Your task to perform on an android device: Open the Play Movies app and select the watchlist tab. Image 0: 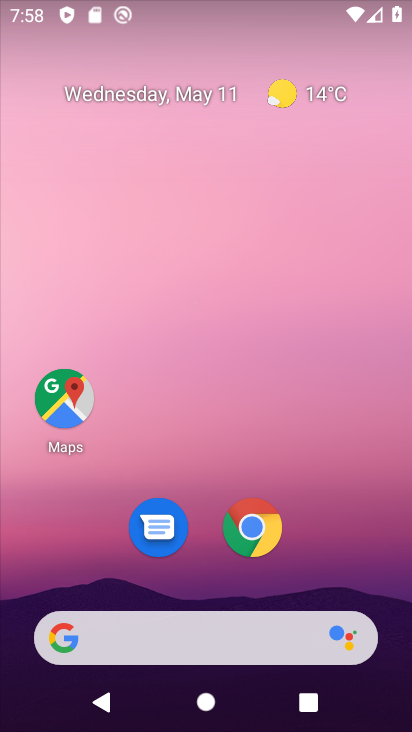
Step 0: drag from (193, 564) to (240, 193)
Your task to perform on an android device: Open the Play Movies app and select the watchlist tab. Image 1: 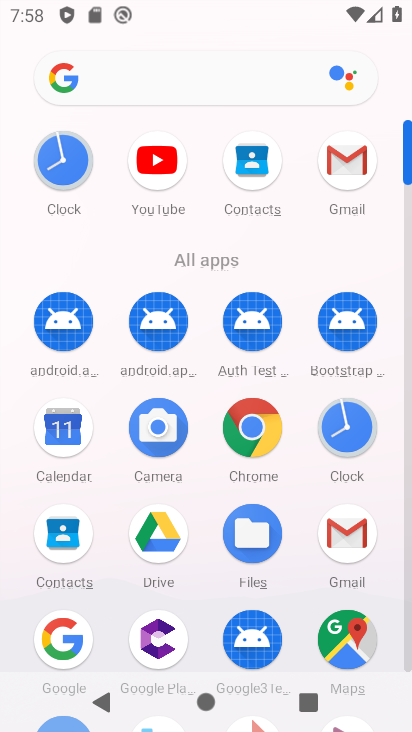
Step 1: drag from (210, 578) to (234, 183)
Your task to perform on an android device: Open the Play Movies app and select the watchlist tab. Image 2: 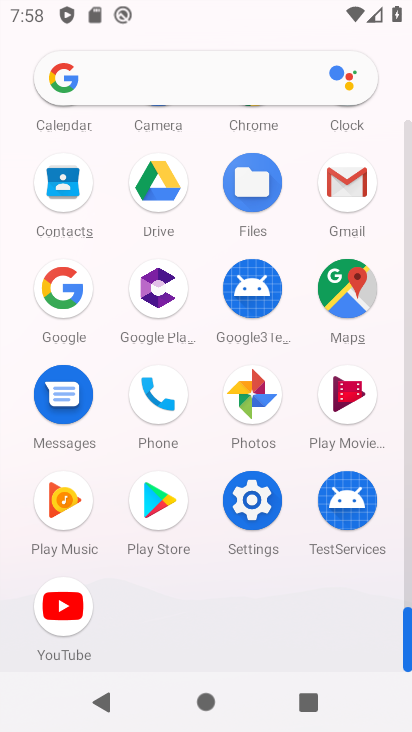
Step 2: click (343, 399)
Your task to perform on an android device: Open the Play Movies app and select the watchlist tab. Image 3: 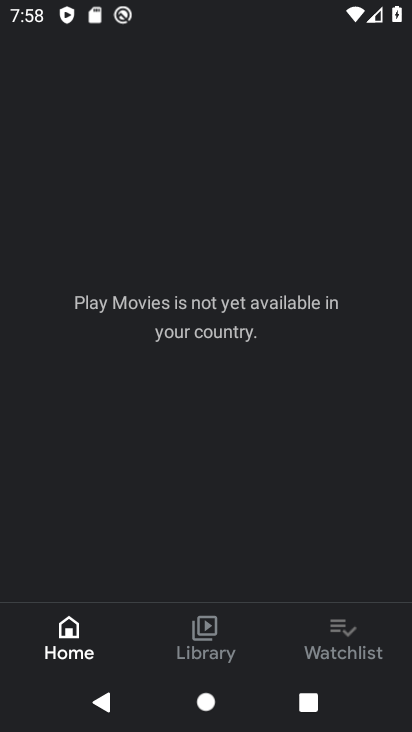
Step 3: click (341, 635)
Your task to perform on an android device: Open the Play Movies app and select the watchlist tab. Image 4: 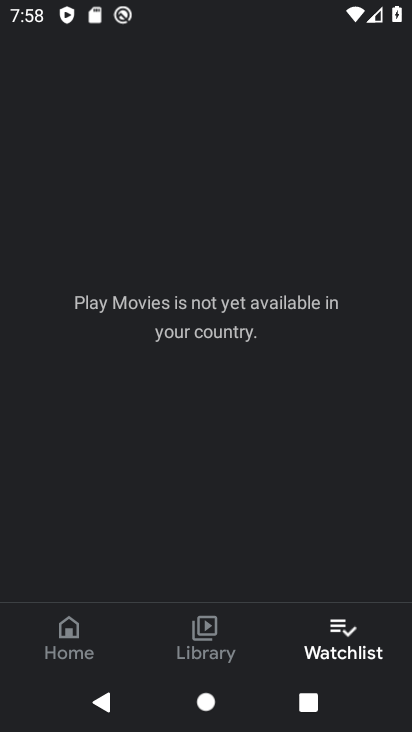
Step 4: task complete